Your task to perform on an android device: Search for usb-a on ebay, select the first entry, add it to the cart, then select checkout. Image 0: 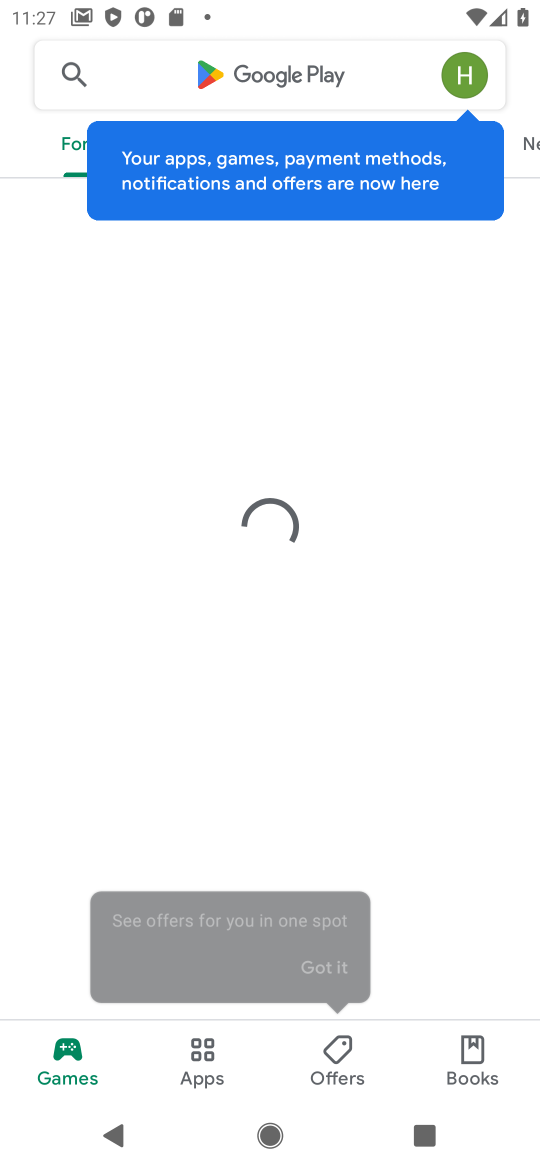
Step 0: press home button
Your task to perform on an android device: Search for usb-a on ebay, select the first entry, add it to the cart, then select checkout. Image 1: 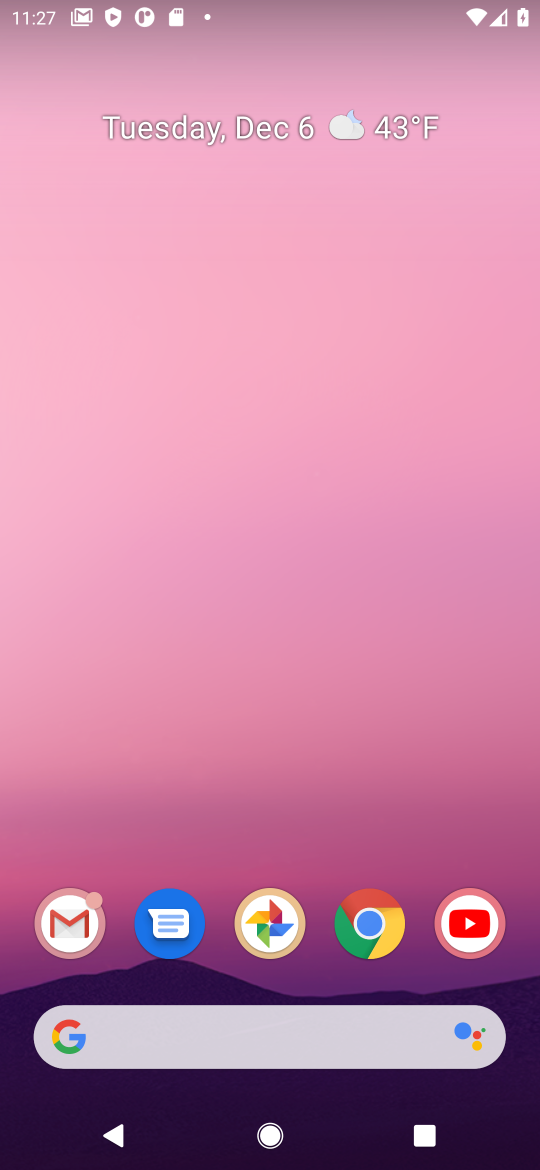
Step 1: click (385, 915)
Your task to perform on an android device: Search for usb-a on ebay, select the first entry, add it to the cart, then select checkout. Image 2: 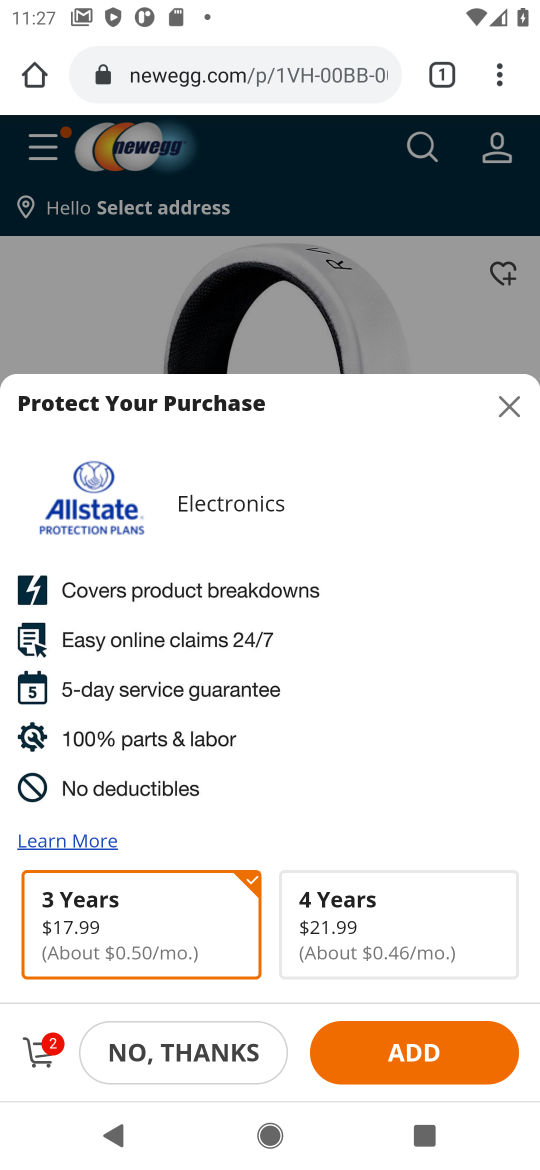
Step 2: click (215, 65)
Your task to perform on an android device: Search for usb-a on ebay, select the first entry, add it to the cart, then select checkout. Image 3: 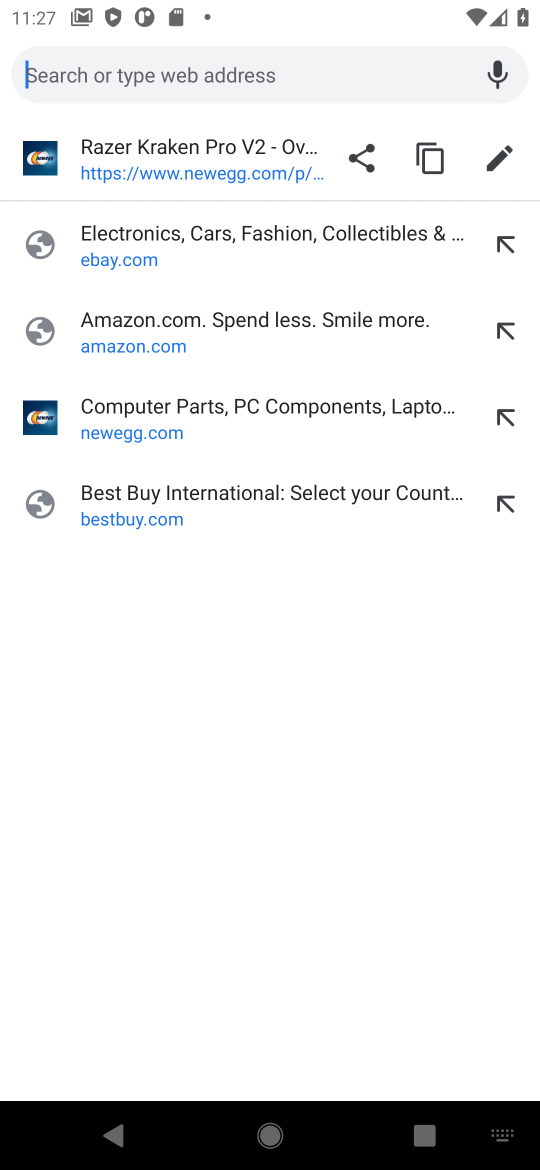
Step 3: click (152, 255)
Your task to perform on an android device: Search for usb-a on ebay, select the first entry, add it to the cart, then select checkout. Image 4: 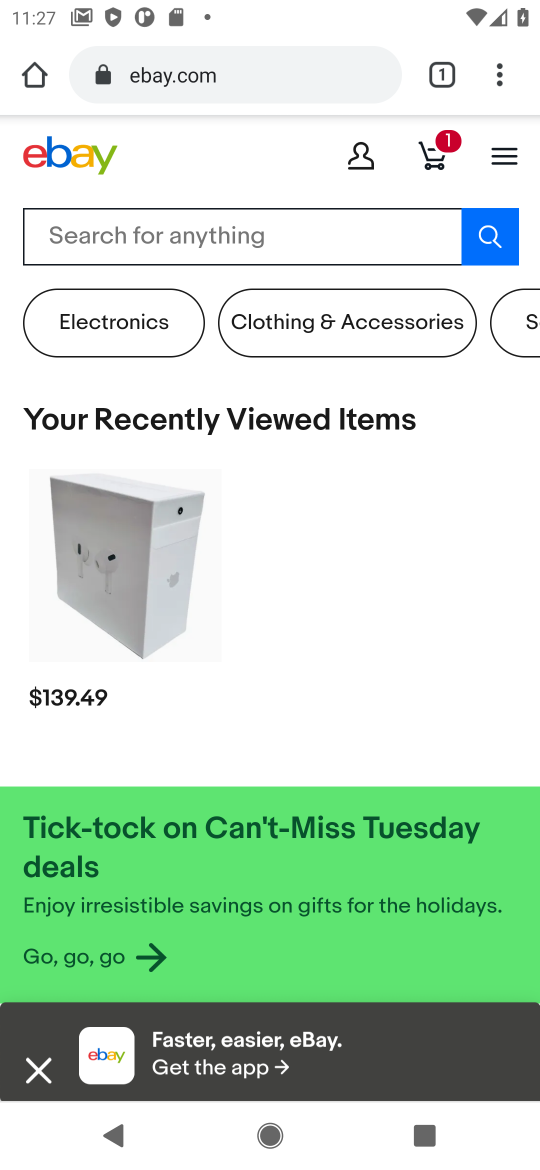
Step 4: click (366, 232)
Your task to perform on an android device: Search for usb-a on ebay, select the first entry, add it to the cart, then select checkout. Image 5: 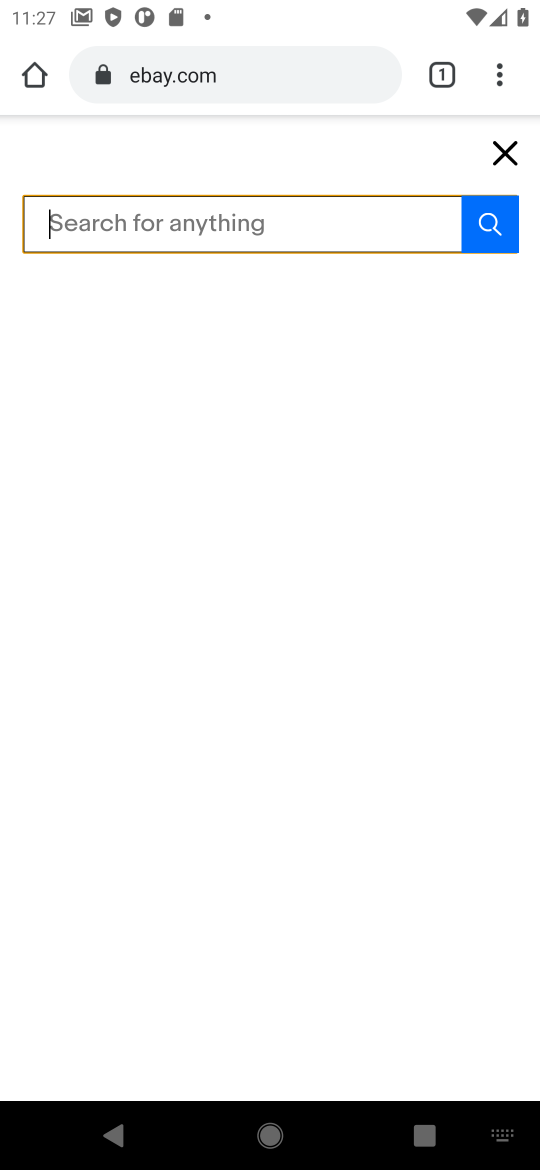
Step 5: type "USB-A"
Your task to perform on an android device: Search for usb-a on ebay, select the first entry, add it to the cart, then select checkout. Image 6: 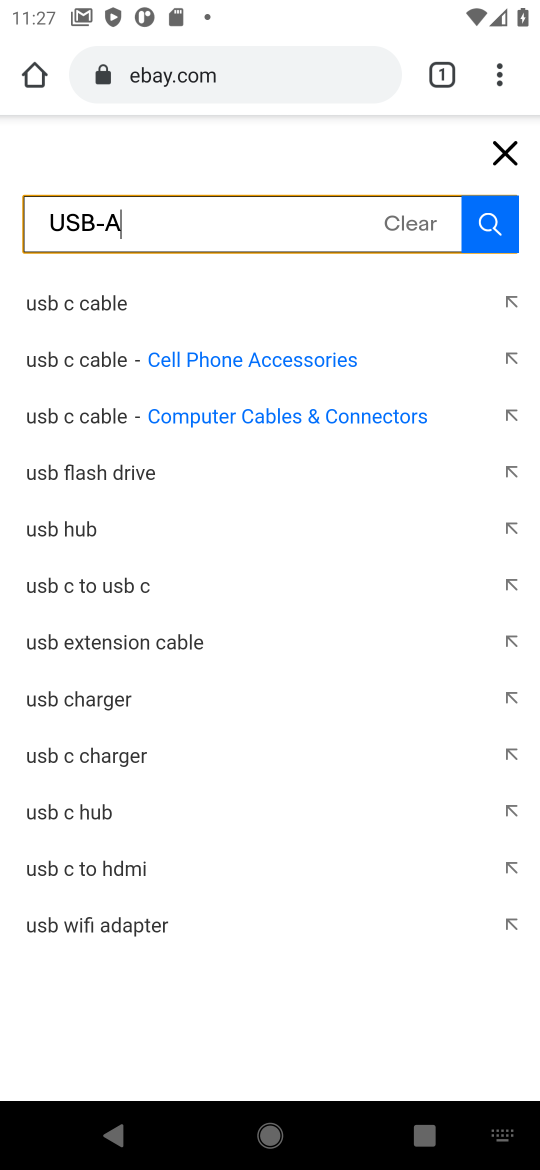
Step 6: click (58, 308)
Your task to perform on an android device: Search for usb-a on ebay, select the first entry, add it to the cart, then select checkout. Image 7: 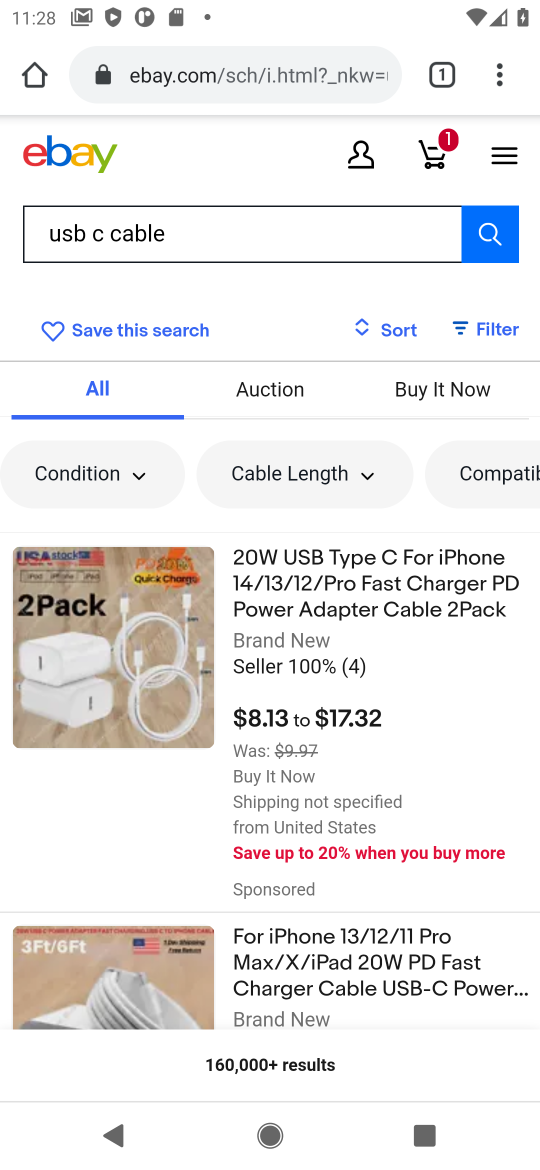
Step 7: click (137, 674)
Your task to perform on an android device: Search for usb-a on ebay, select the first entry, add it to the cart, then select checkout. Image 8: 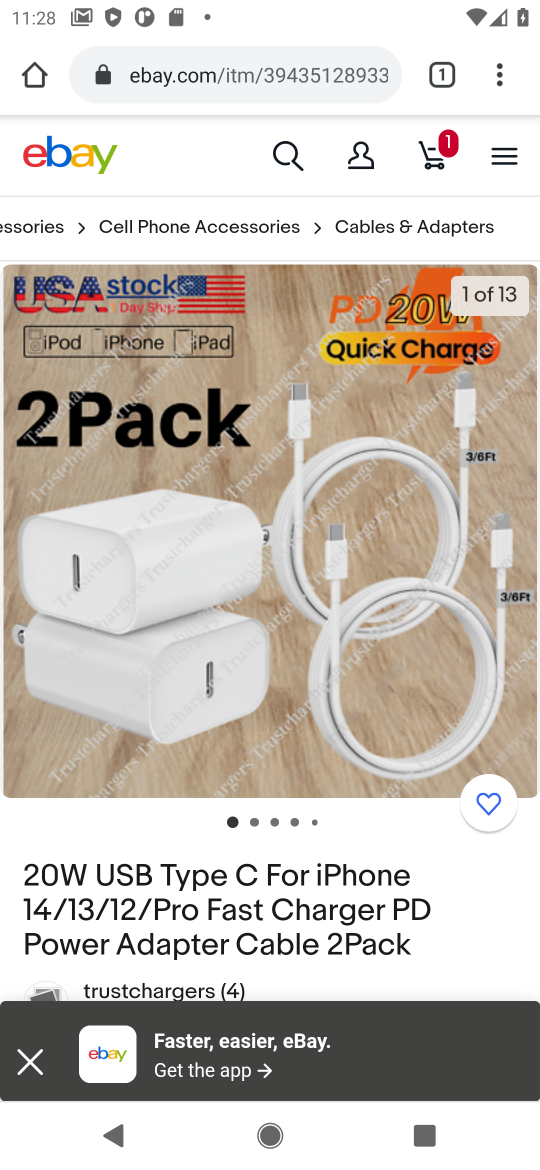
Step 8: drag from (349, 998) to (392, 417)
Your task to perform on an android device: Search for usb-a on ebay, select the first entry, add it to the cart, then select checkout. Image 9: 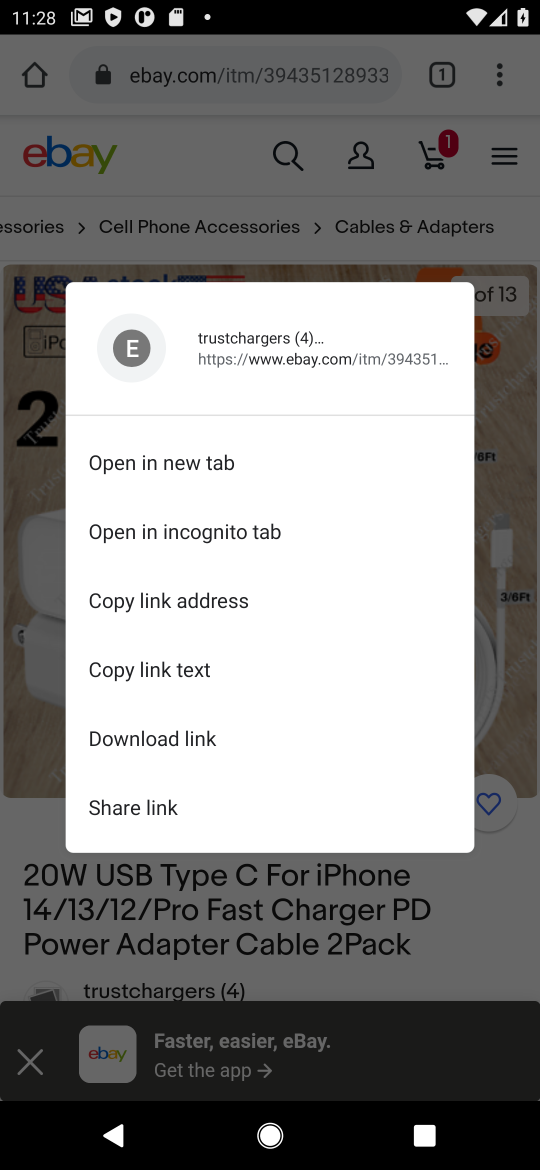
Step 9: click (486, 901)
Your task to perform on an android device: Search for usb-a on ebay, select the first entry, add it to the cart, then select checkout. Image 10: 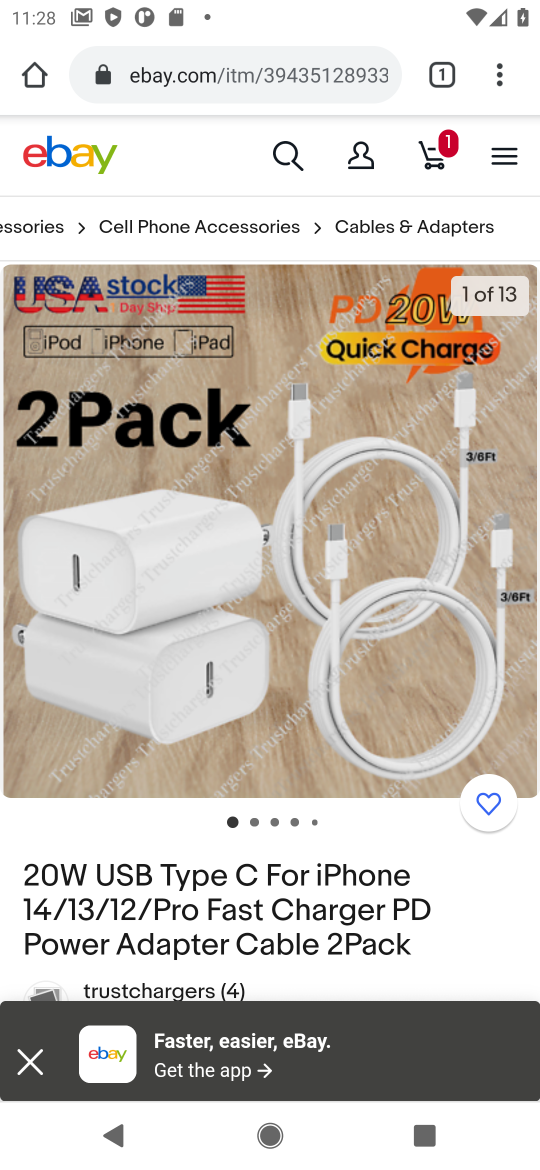
Step 10: drag from (469, 920) to (349, 242)
Your task to perform on an android device: Search for usb-a on ebay, select the first entry, add it to the cart, then select checkout. Image 11: 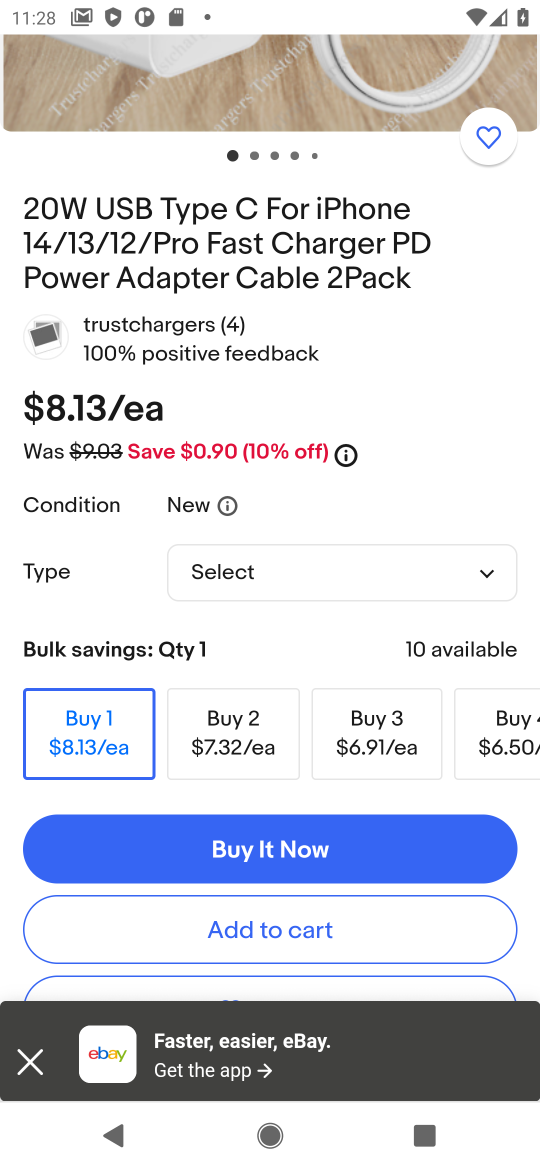
Step 11: drag from (384, 905) to (329, 407)
Your task to perform on an android device: Search for usb-a on ebay, select the first entry, add it to the cart, then select checkout. Image 12: 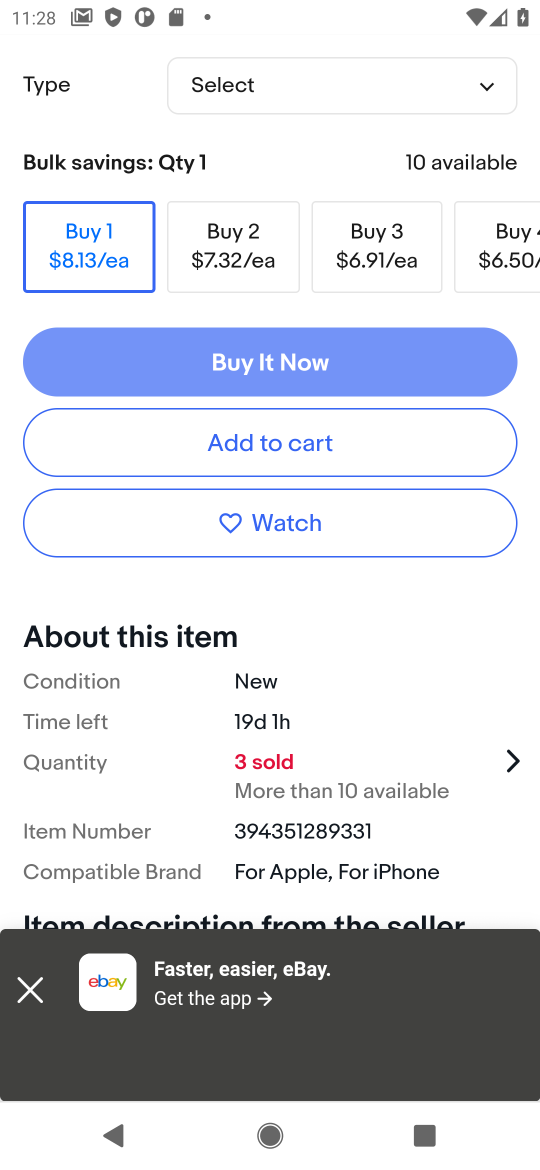
Step 12: click (269, 426)
Your task to perform on an android device: Search for usb-a on ebay, select the first entry, add it to the cart, then select checkout. Image 13: 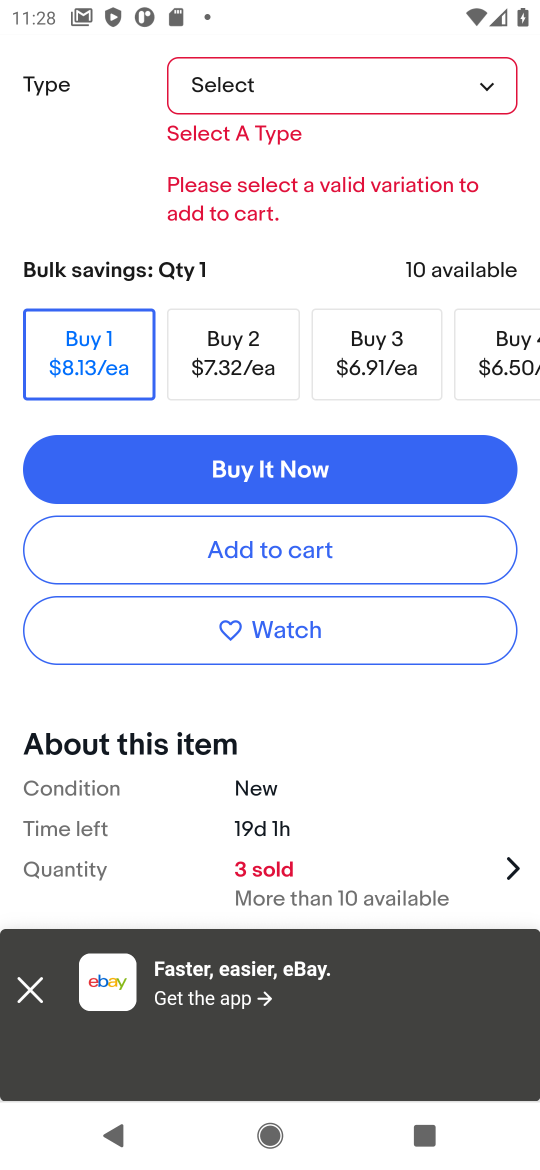
Step 13: click (260, 554)
Your task to perform on an android device: Search for usb-a on ebay, select the first entry, add it to the cart, then select checkout. Image 14: 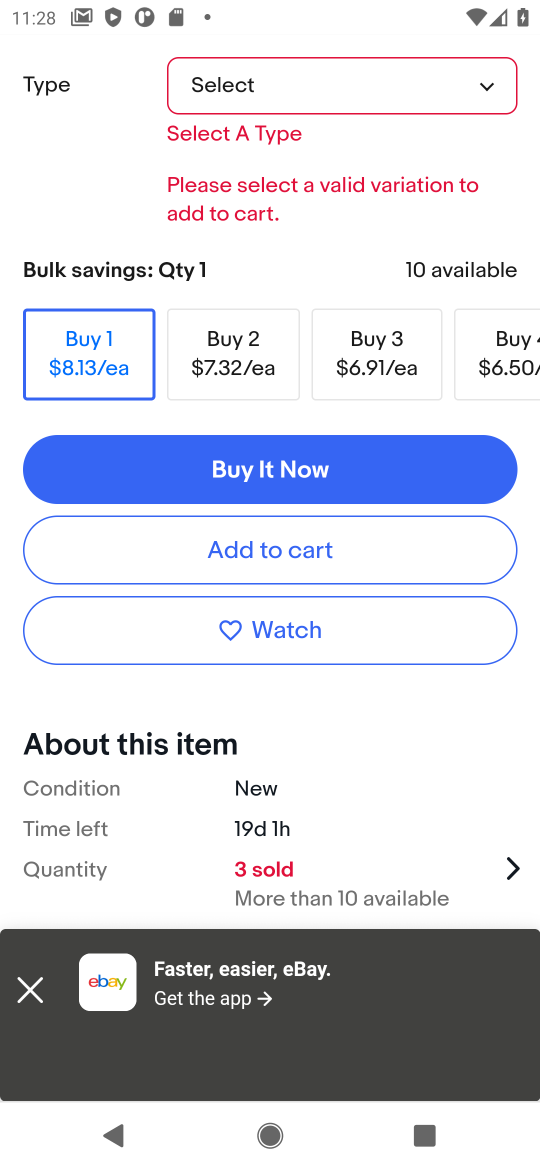
Step 14: click (282, 555)
Your task to perform on an android device: Search for usb-a on ebay, select the first entry, add it to the cart, then select checkout. Image 15: 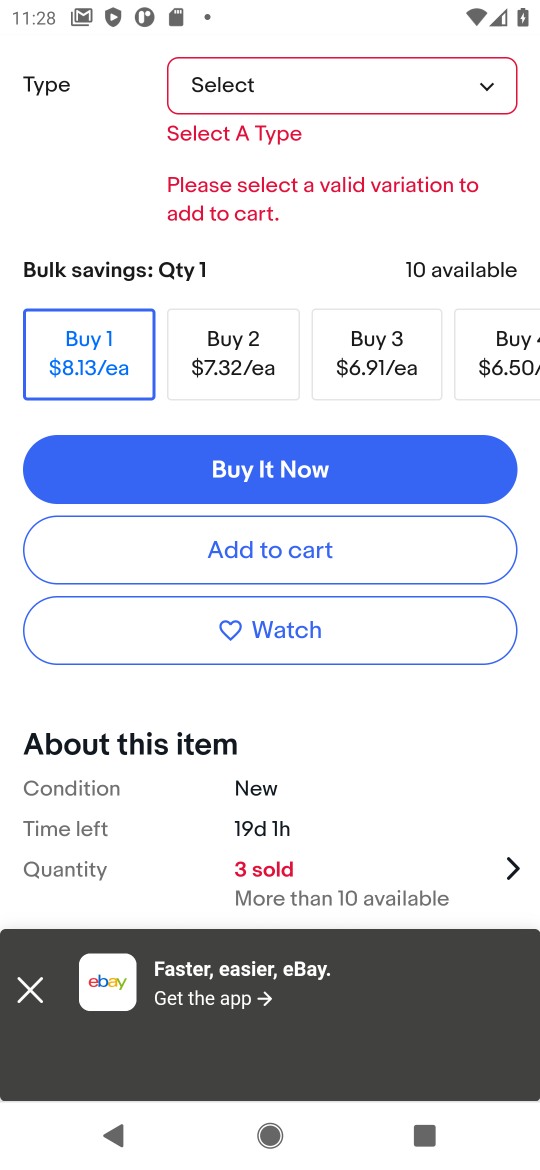
Step 15: click (294, 548)
Your task to perform on an android device: Search for usb-a on ebay, select the first entry, add it to the cart, then select checkout. Image 16: 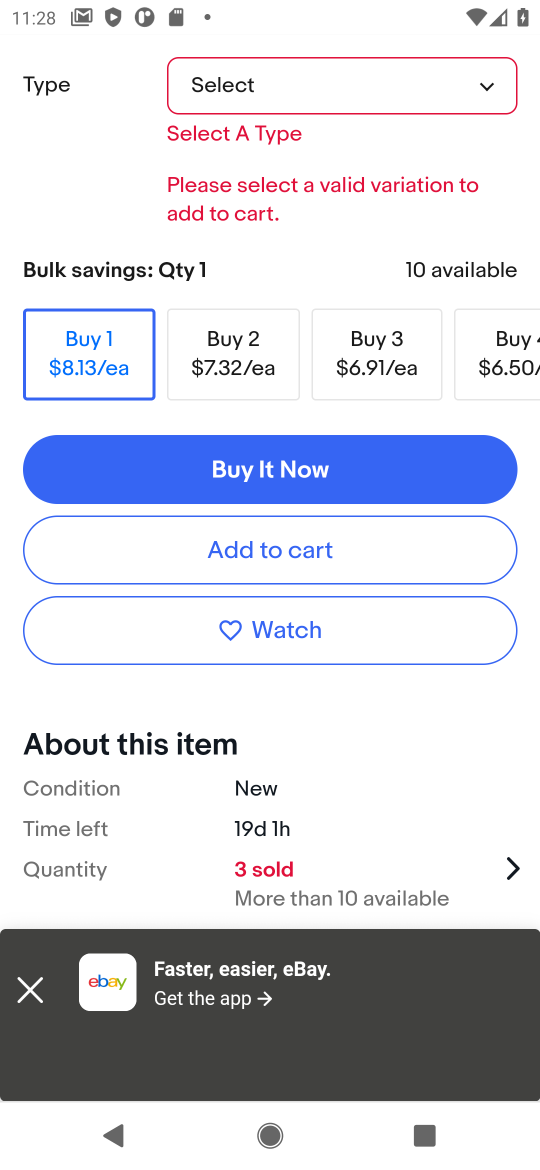
Step 16: click (294, 548)
Your task to perform on an android device: Search for usb-a on ebay, select the first entry, add it to the cart, then select checkout. Image 17: 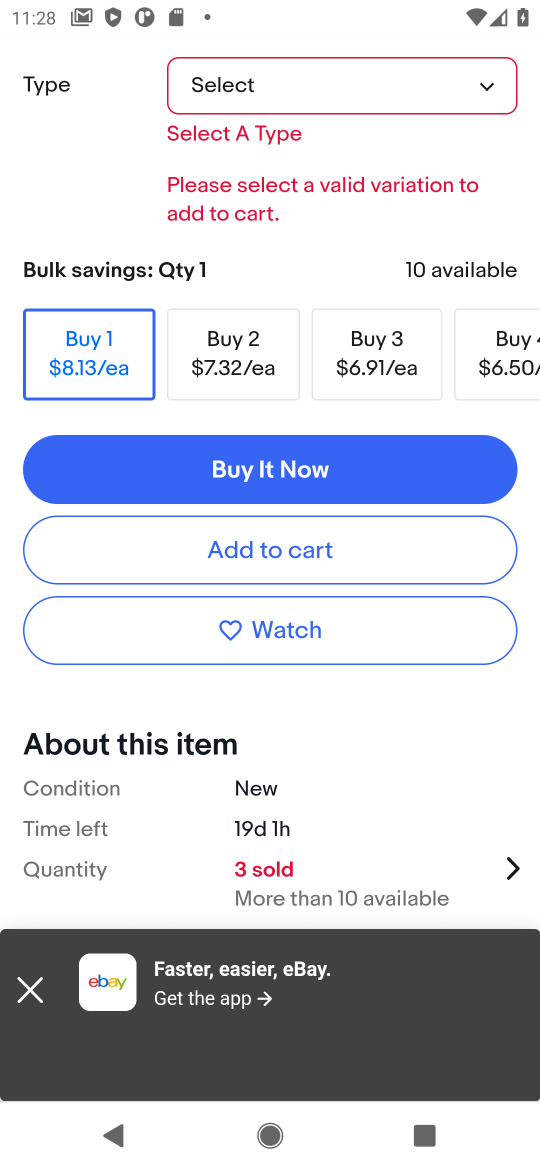
Step 17: task complete